Your task to perform on an android device: change notification settings in the gmail app Image 0: 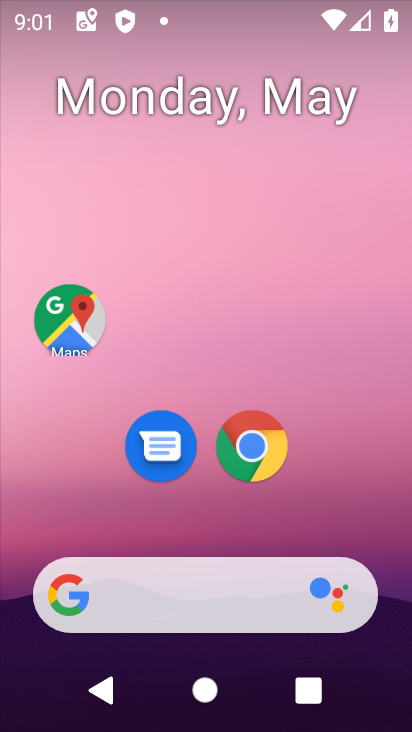
Step 0: press home button
Your task to perform on an android device: change notification settings in the gmail app Image 1: 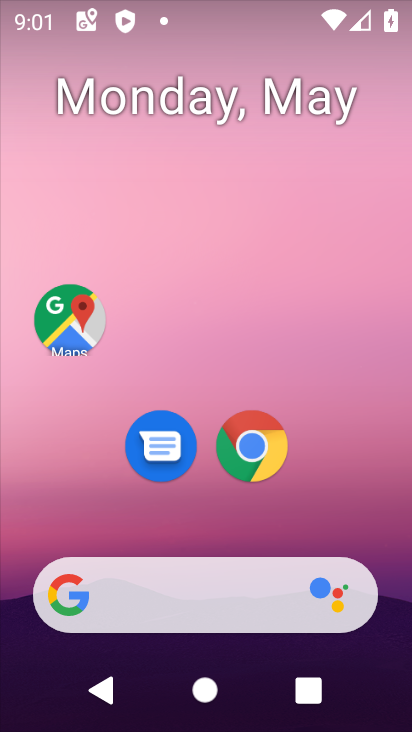
Step 1: drag from (206, 521) to (208, 170)
Your task to perform on an android device: change notification settings in the gmail app Image 2: 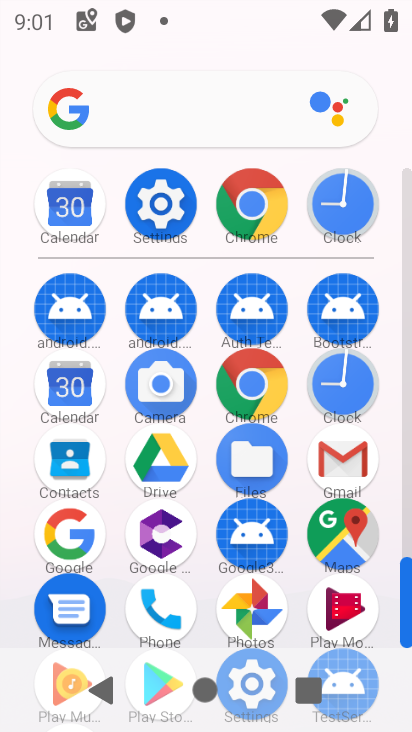
Step 2: click (340, 449)
Your task to perform on an android device: change notification settings in the gmail app Image 3: 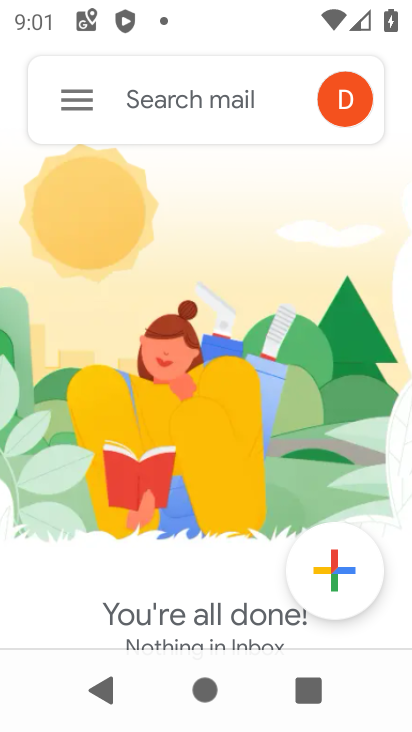
Step 3: press home button
Your task to perform on an android device: change notification settings in the gmail app Image 4: 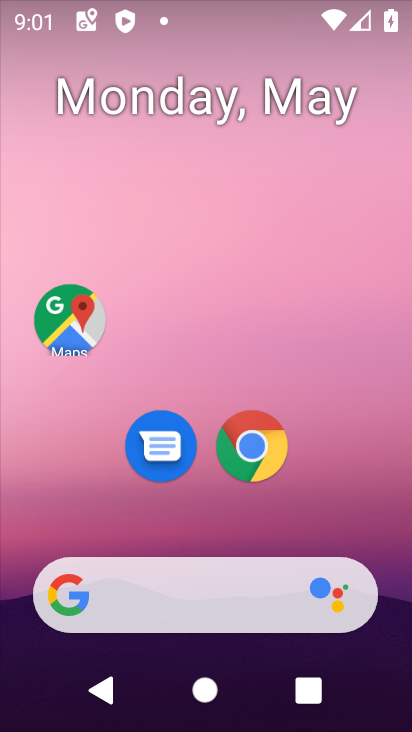
Step 4: drag from (213, 523) to (226, 55)
Your task to perform on an android device: change notification settings in the gmail app Image 5: 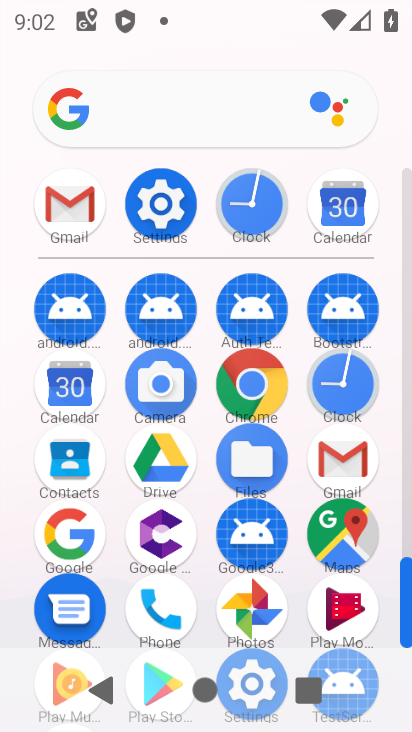
Step 5: click (66, 197)
Your task to perform on an android device: change notification settings in the gmail app Image 6: 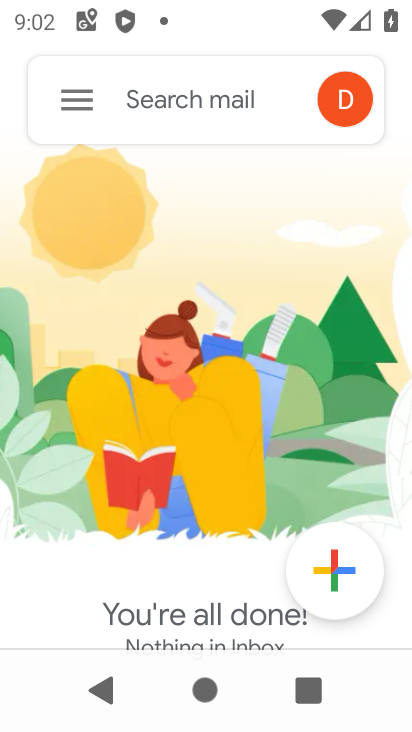
Step 6: click (81, 102)
Your task to perform on an android device: change notification settings in the gmail app Image 7: 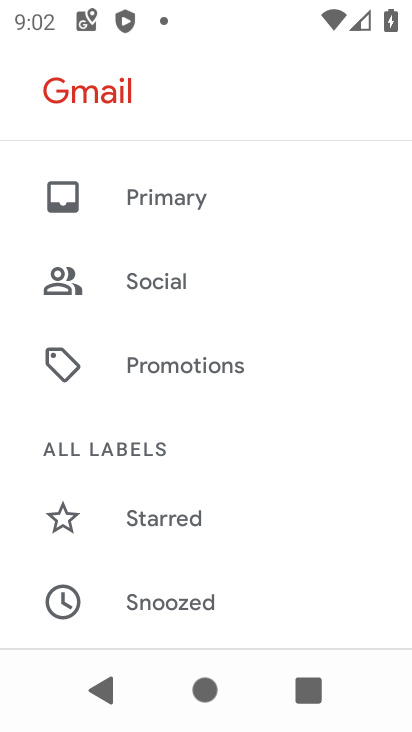
Step 7: drag from (226, 575) to (222, 134)
Your task to perform on an android device: change notification settings in the gmail app Image 8: 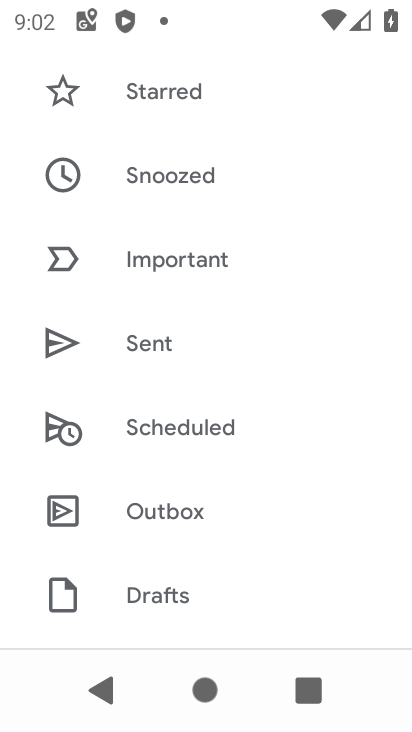
Step 8: drag from (228, 591) to (243, 155)
Your task to perform on an android device: change notification settings in the gmail app Image 9: 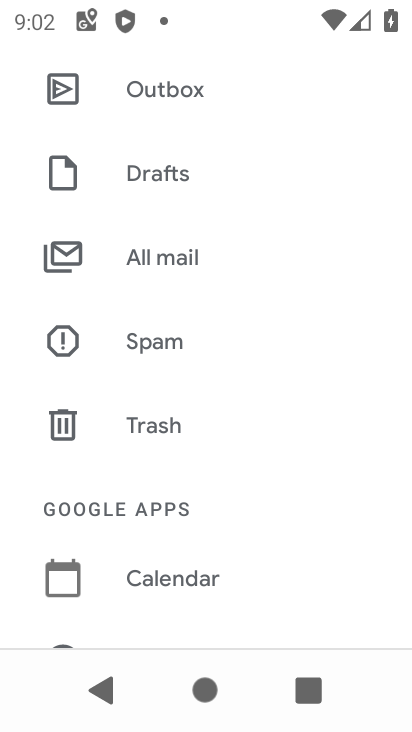
Step 9: drag from (206, 592) to (220, 117)
Your task to perform on an android device: change notification settings in the gmail app Image 10: 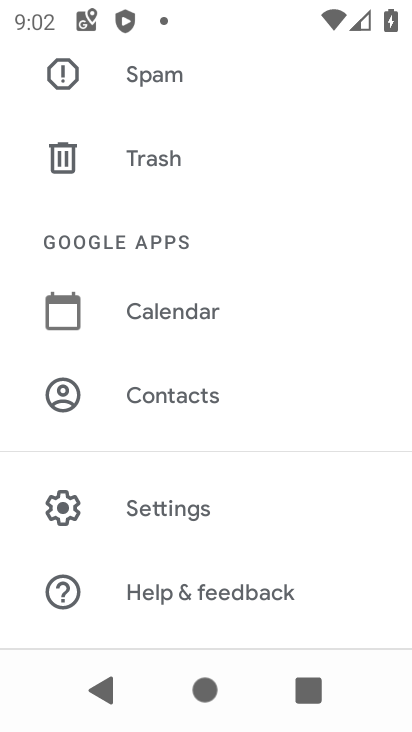
Step 10: click (91, 506)
Your task to perform on an android device: change notification settings in the gmail app Image 11: 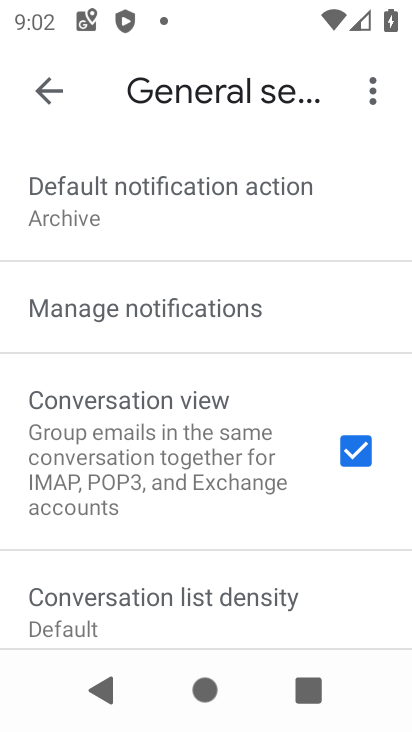
Step 11: click (286, 303)
Your task to perform on an android device: change notification settings in the gmail app Image 12: 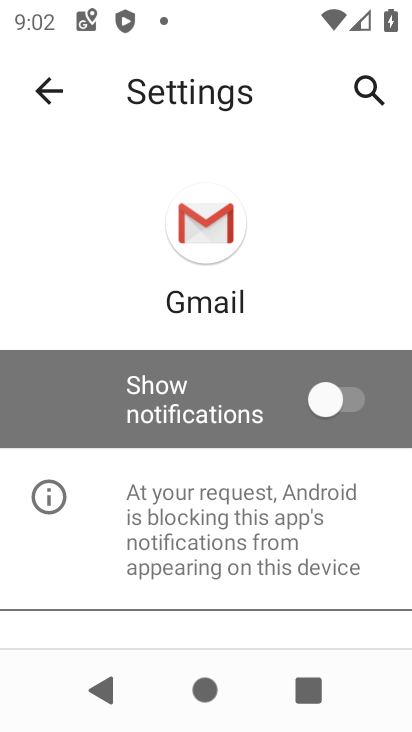
Step 12: click (349, 403)
Your task to perform on an android device: change notification settings in the gmail app Image 13: 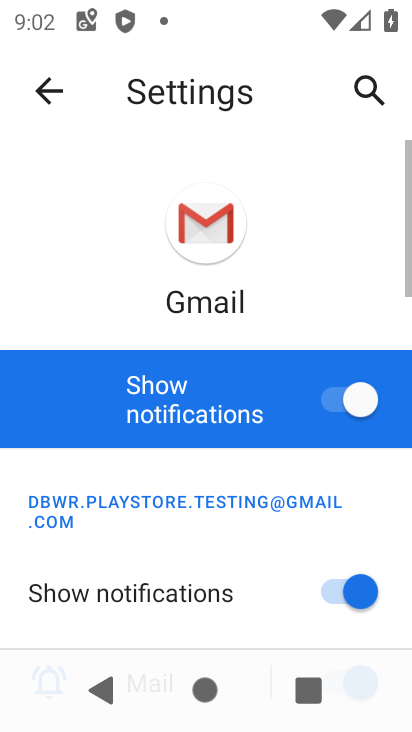
Step 13: task complete